Your task to perform on an android device: toggle javascript in the chrome app Image 0: 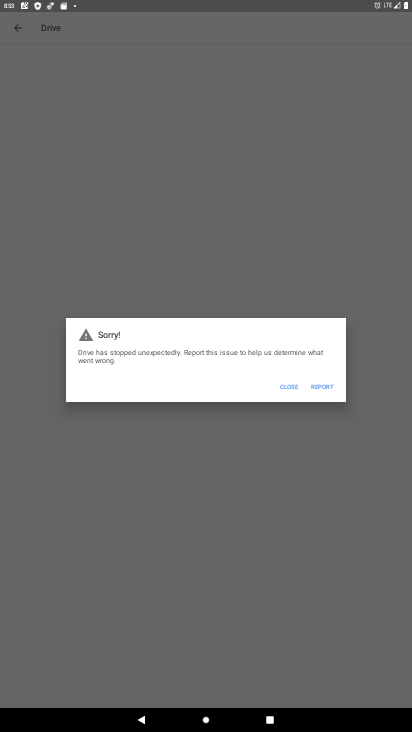
Step 0: press home button
Your task to perform on an android device: toggle javascript in the chrome app Image 1: 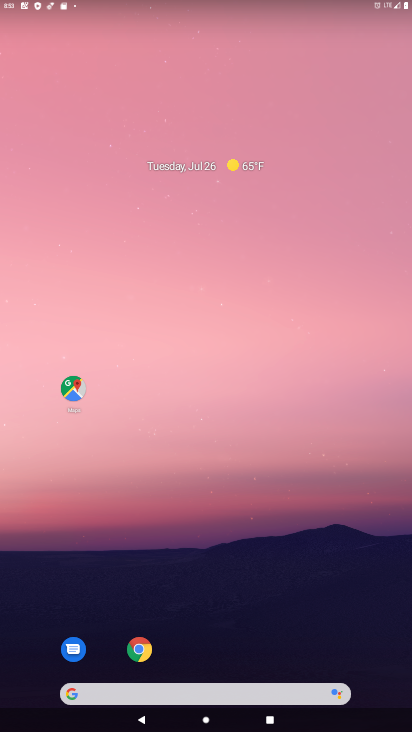
Step 1: click (139, 648)
Your task to perform on an android device: toggle javascript in the chrome app Image 2: 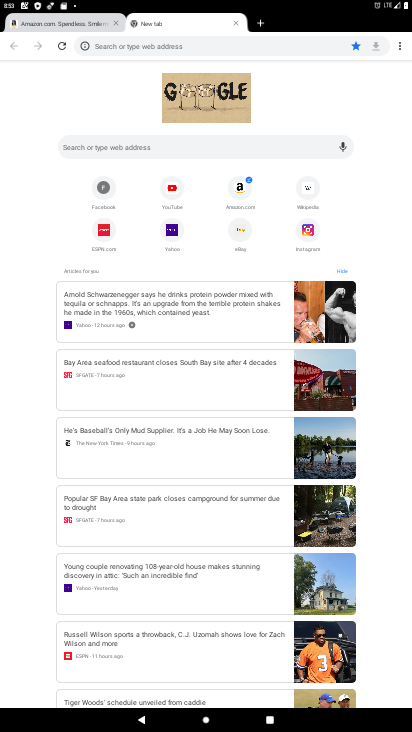
Step 2: click (399, 45)
Your task to perform on an android device: toggle javascript in the chrome app Image 3: 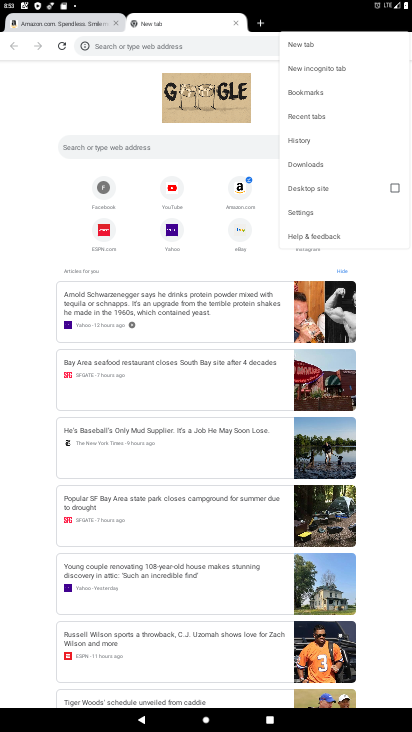
Step 3: click (306, 212)
Your task to perform on an android device: toggle javascript in the chrome app Image 4: 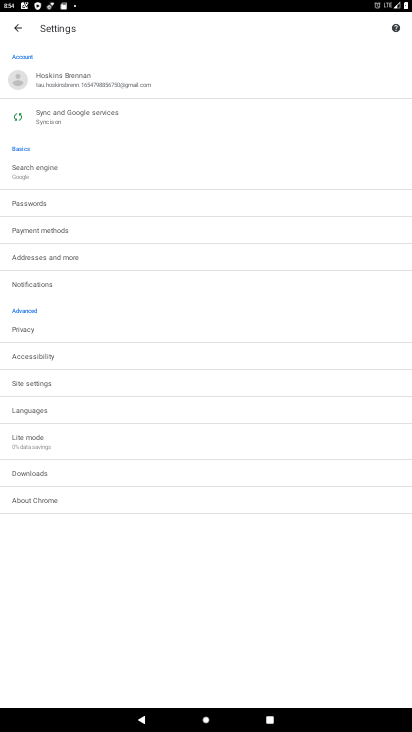
Step 4: click (34, 384)
Your task to perform on an android device: toggle javascript in the chrome app Image 5: 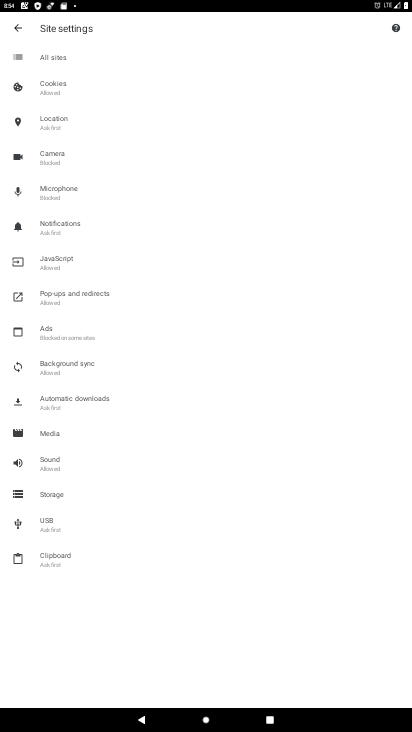
Step 5: click (60, 254)
Your task to perform on an android device: toggle javascript in the chrome app Image 6: 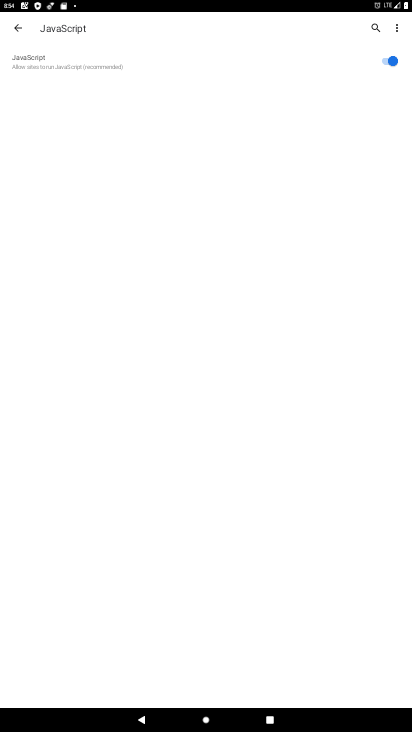
Step 6: click (383, 60)
Your task to perform on an android device: toggle javascript in the chrome app Image 7: 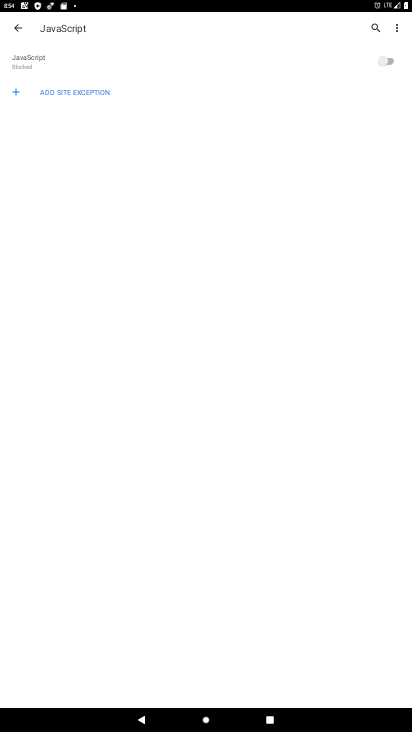
Step 7: task complete